Your task to perform on an android device: toggle translation in the chrome app Image 0: 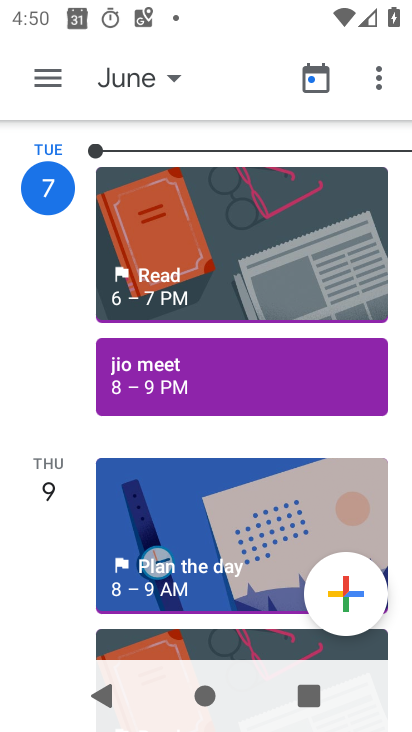
Step 0: press back button
Your task to perform on an android device: toggle translation in the chrome app Image 1: 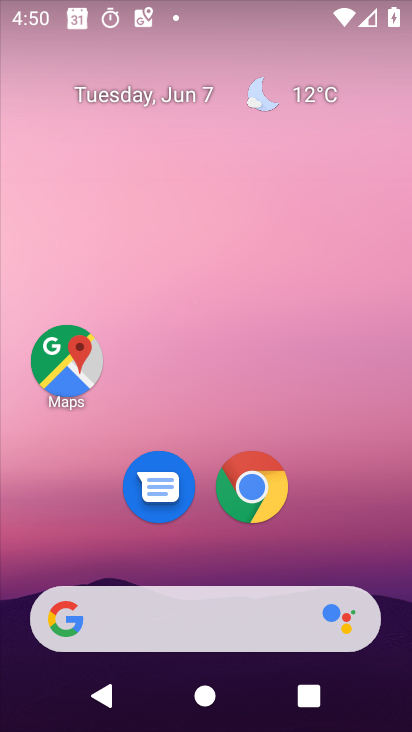
Step 1: click (268, 481)
Your task to perform on an android device: toggle translation in the chrome app Image 2: 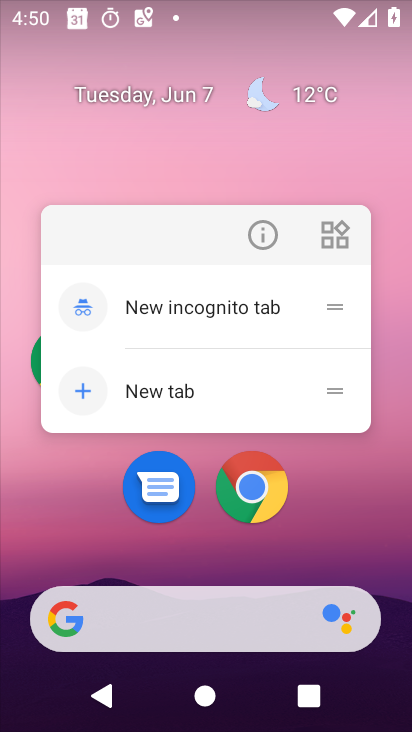
Step 2: click (269, 480)
Your task to perform on an android device: toggle translation in the chrome app Image 3: 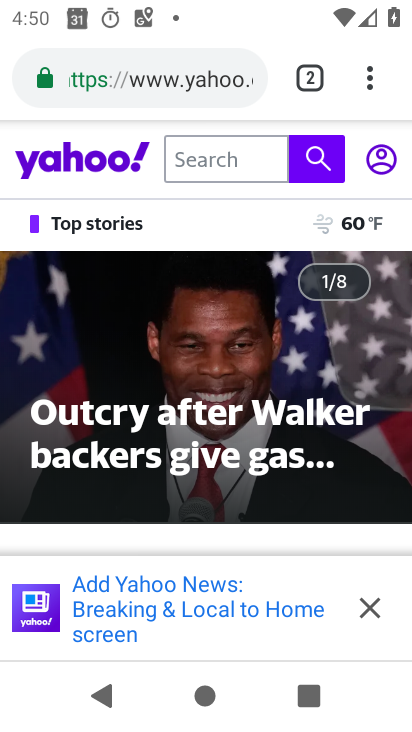
Step 3: drag from (371, 69) to (125, 549)
Your task to perform on an android device: toggle translation in the chrome app Image 4: 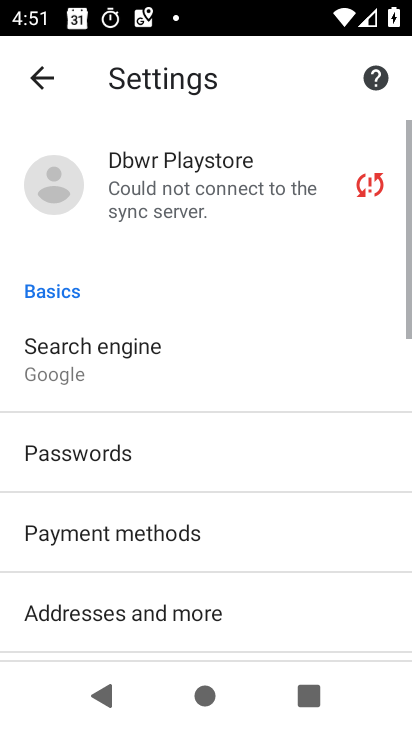
Step 4: drag from (125, 611) to (214, 146)
Your task to perform on an android device: toggle translation in the chrome app Image 5: 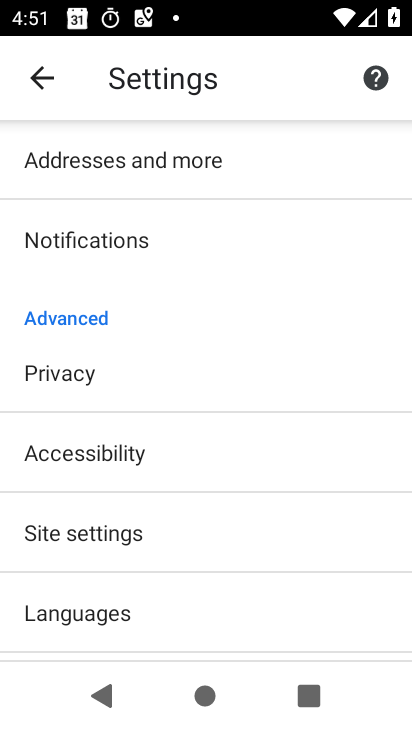
Step 5: click (87, 607)
Your task to perform on an android device: toggle translation in the chrome app Image 6: 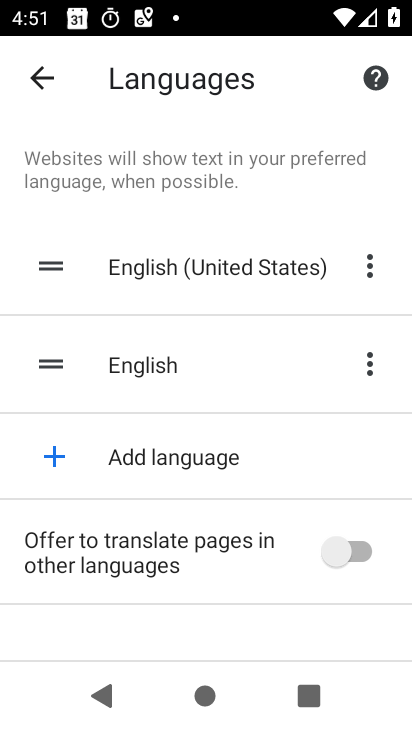
Step 6: click (343, 548)
Your task to perform on an android device: toggle translation in the chrome app Image 7: 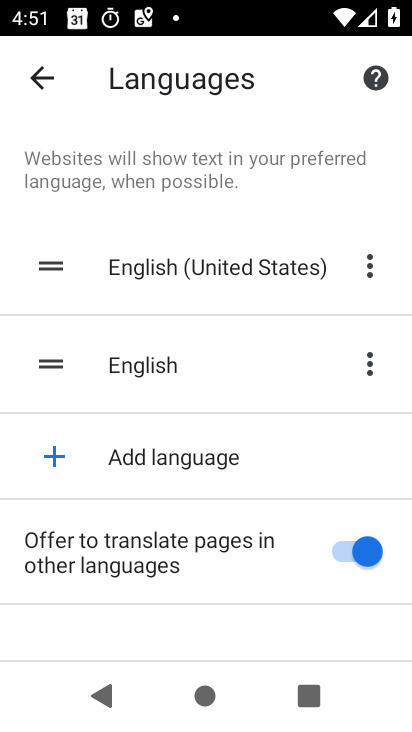
Step 7: task complete